Your task to perform on an android device: check google app version Image 0: 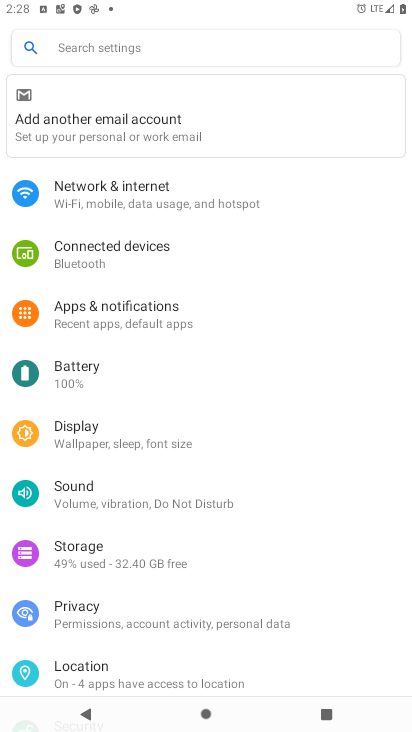
Step 0: press enter
Your task to perform on an android device: check google app version Image 1: 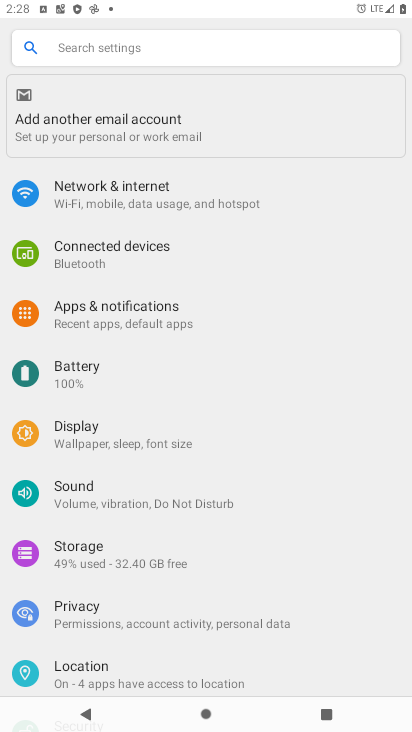
Step 1: press home button
Your task to perform on an android device: check google app version Image 2: 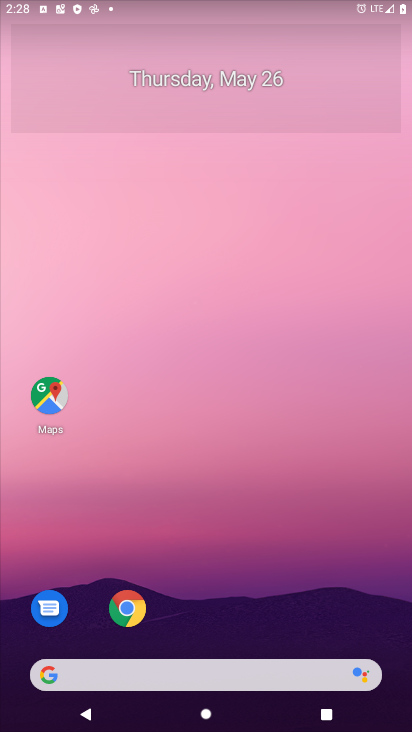
Step 2: click (129, 608)
Your task to perform on an android device: check google app version Image 3: 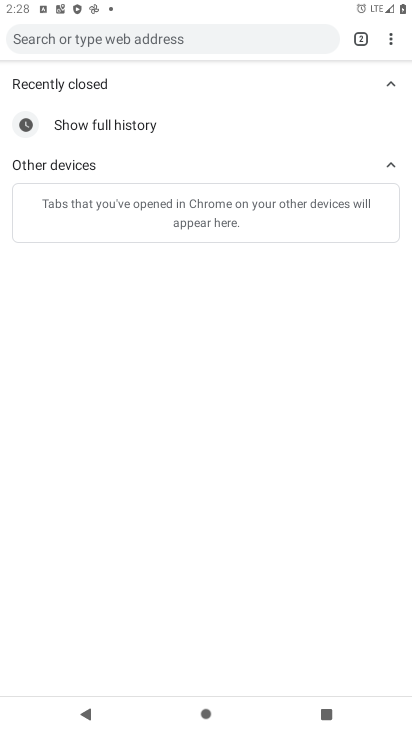
Step 3: click (389, 45)
Your task to perform on an android device: check google app version Image 4: 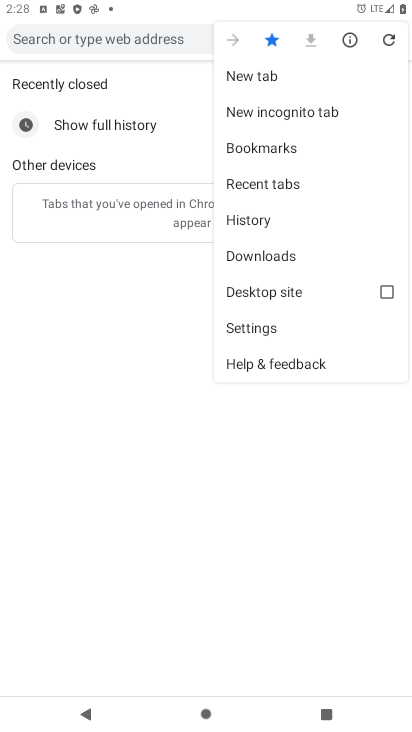
Step 4: click (256, 331)
Your task to perform on an android device: check google app version Image 5: 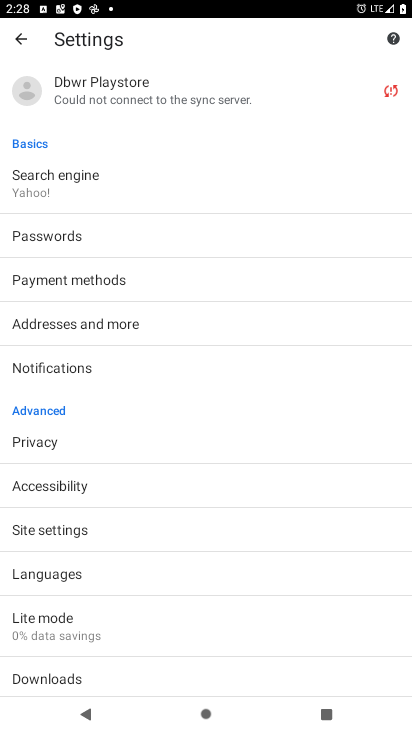
Step 5: drag from (144, 583) to (181, 227)
Your task to perform on an android device: check google app version Image 6: 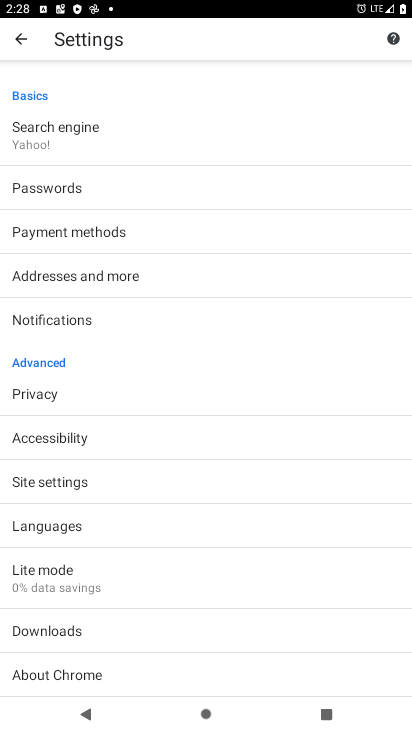
Step 6: click (41, 674)
Your task to perform on an android device: check google app version Image 7: 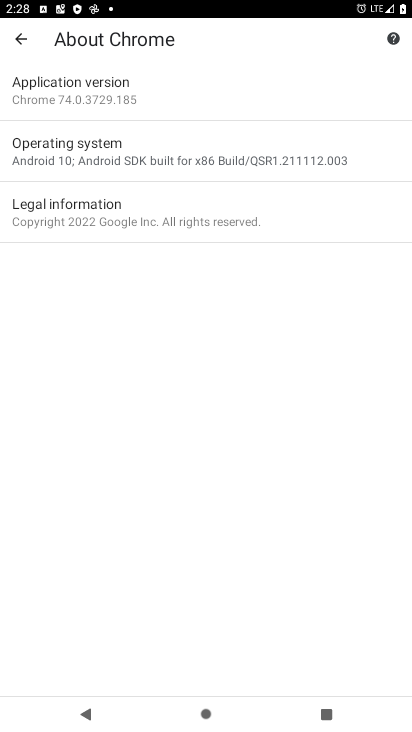
Step 7: click (76, 79)
Your task to perform on an android device: check google app version Image 8: 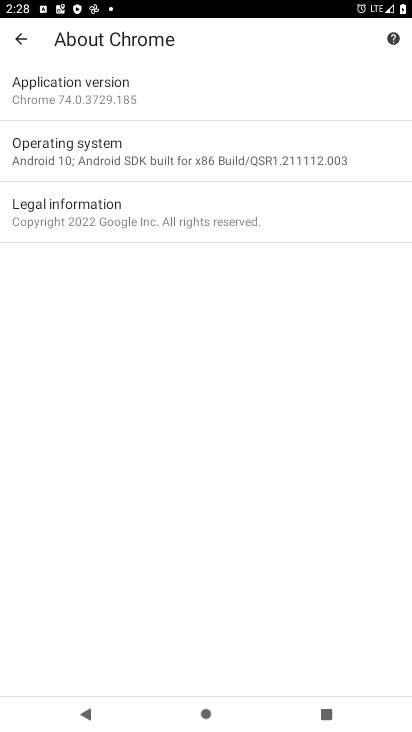
Step 8: task complete